Your task to perform on an android device: turn on data saver in the chrome app Image 0: 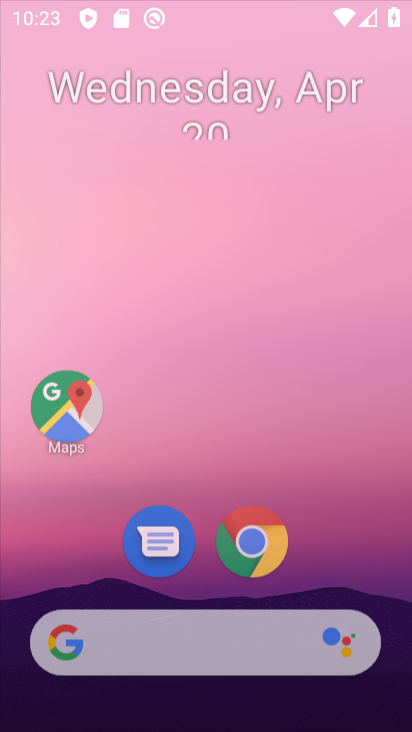
Step 0: press home button
Your task to perform on an android device: turn on data saver in the chrome app Image 1: 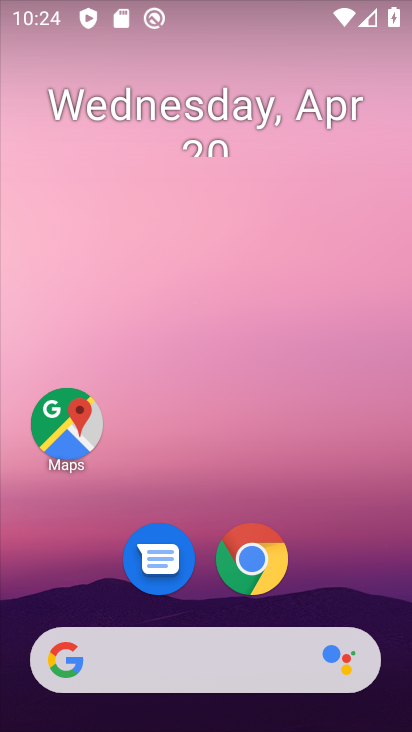
Step 1: click (244, 559)
Your task to perform on an android device: turn on data saver in the chrome app Image 2: 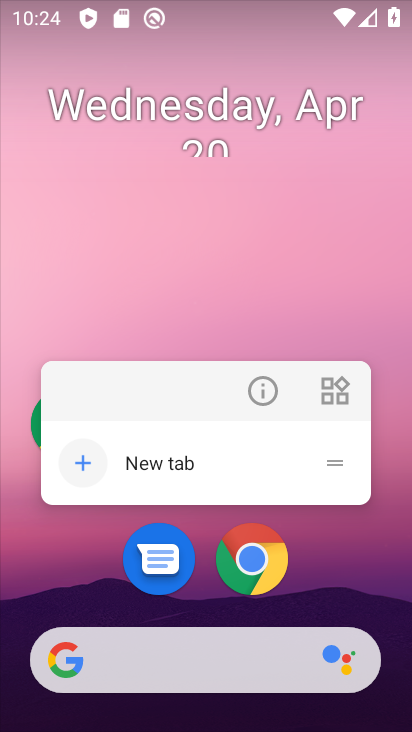
Step 2: drag from (318, 600) to (304, 0)
Your task to perform on an android device: turn on data saver in the chrome app Image 3: 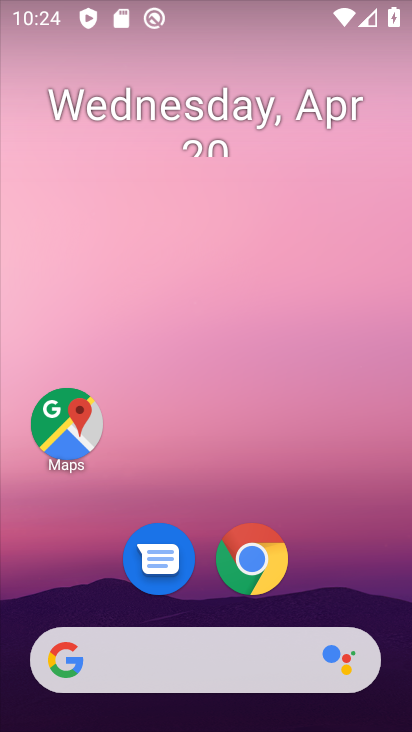
Step 3: drag from (326, 602) to (345, 62)
Your task to perform on an android device: turn on data saver in the chrome app Image 4: 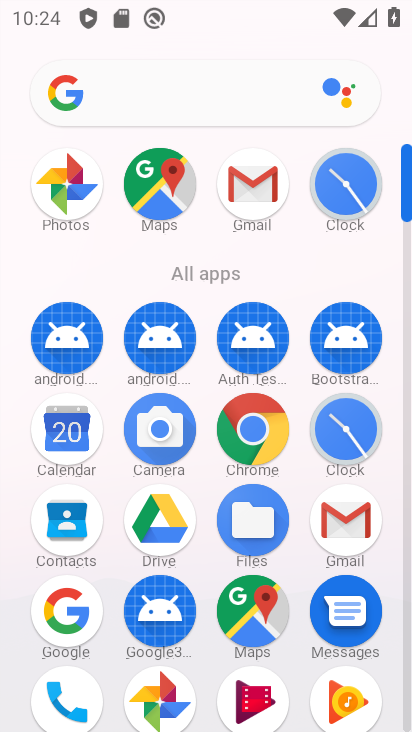
Step 4: drag from (285, 644) to (310, 123)
Your task to perform on an android device: turn on data saver in the chrome app Image 5: 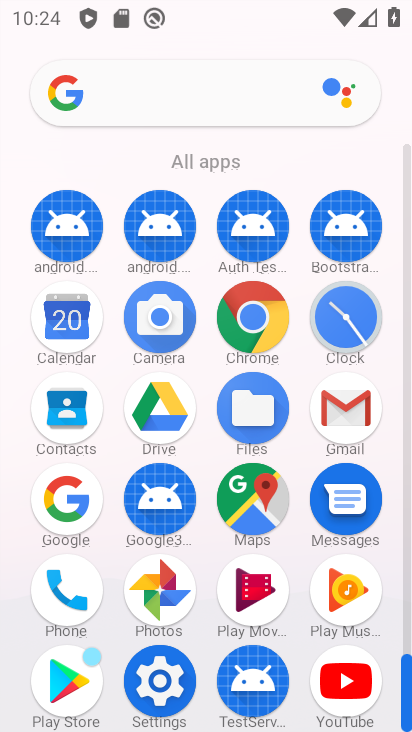
Step 5: click (245, 328)
Your task to perform on an android device: turn on data saver in the chrome app Image 6: 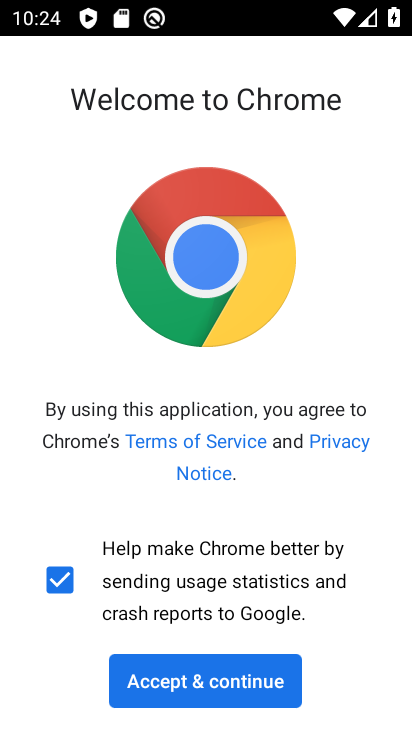
Step 6: click (222, 695)
Your task to perform on an android device: turn on data saver in the chrome app Image 7: 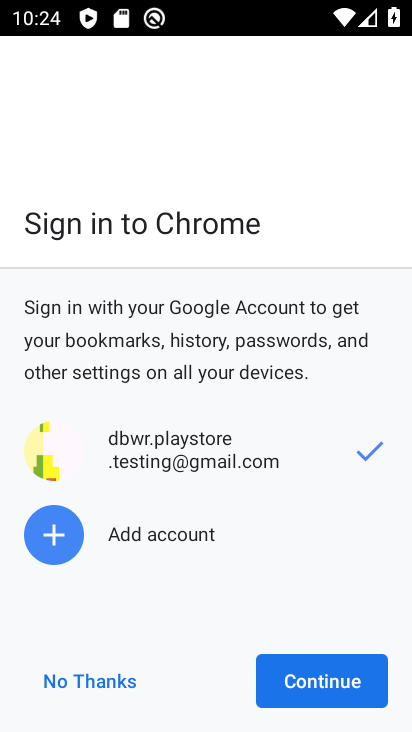
Step 7: click (103, 681)
Your task to perform on an android device: turn on data saver in the chrome app Image 8: 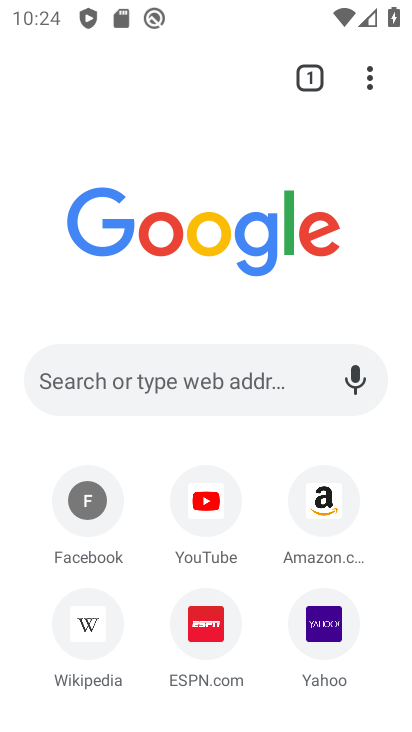
Step 8: drag from (364, 75) to (199, 619)
Your task to perform on an android device: turn on data saver in the chrome app Image 9: 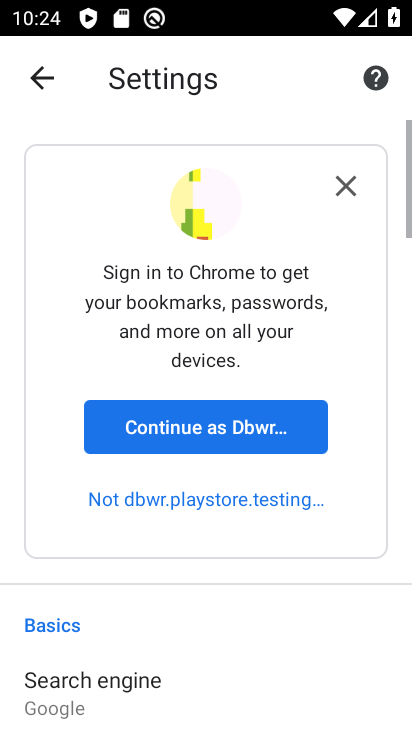
Step 9: drag from (135, 643) to (135, 28)
Your task to perform on an android device: turn on data saver in the chrome app Image 10: 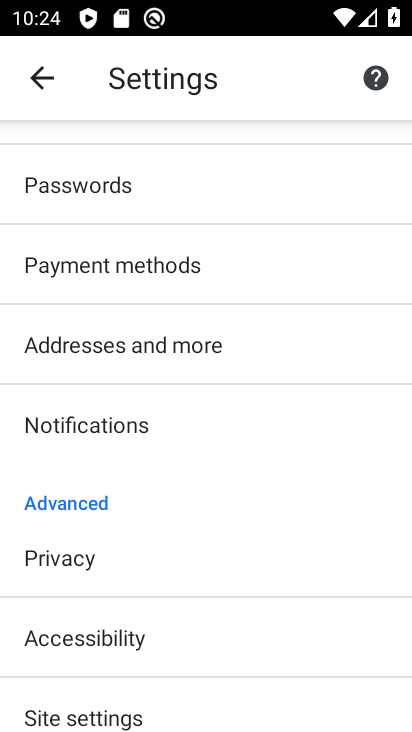
Step 10: drag from (98, 685) to (106, 252)
Your task to perform on an android device: turn on data saver in the chrome app Image 11: 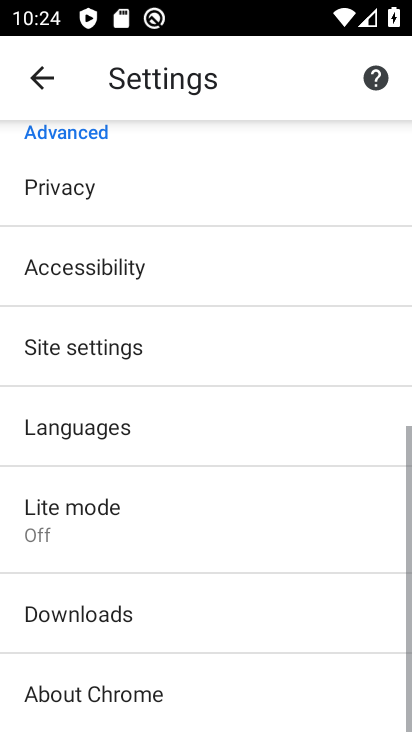
Step 11: click (95, 533)
Your task to perform on an android device: turn on data saver in the chrome app Image 12: 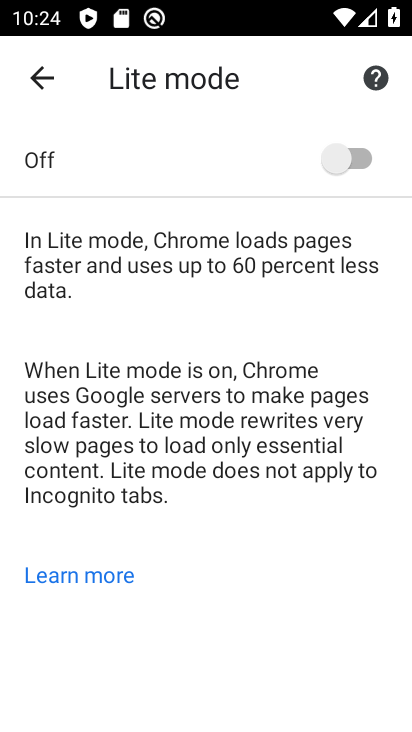
Step 12: click (352, 161)
Your task to perform on an android device: turn on data saver in the chrome app Image 13: 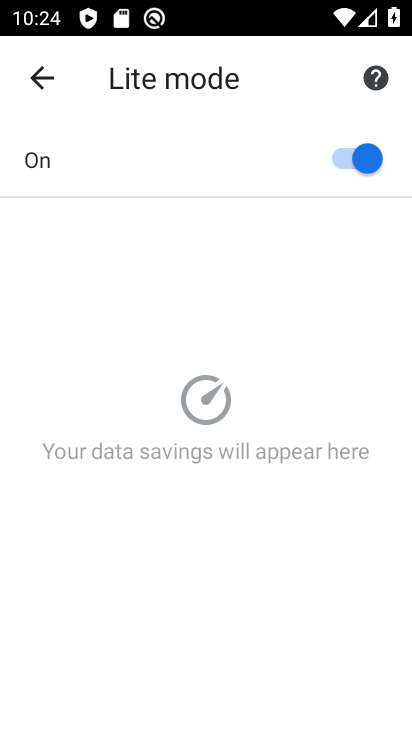
Step 13: task complete